Your task to perform on an android device: star an email in the gmail app Image 0: 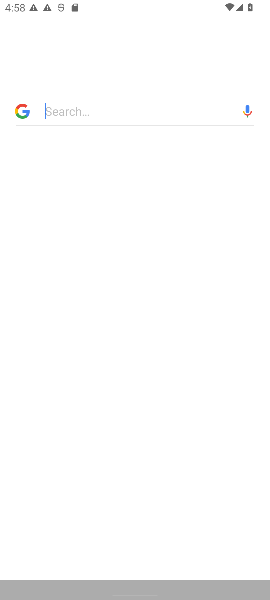
Step 0: click (257, 32)
Your task to perform on an android device: star an email in the gmail app Image 1: 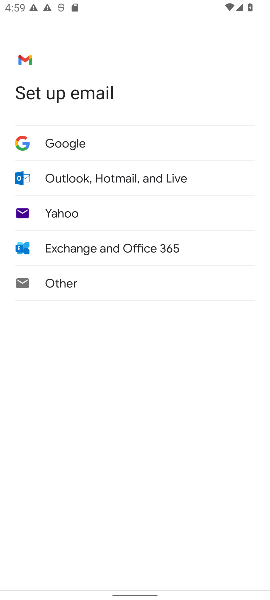
Step 1: press home button
Your task to perform on an android device: star an email in the gmail app Image 2: 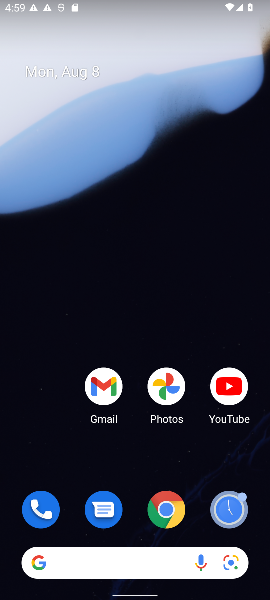
Step 2: click (105, 389)
Your task to perform on an android device: star an email in the gmail app Image 3: 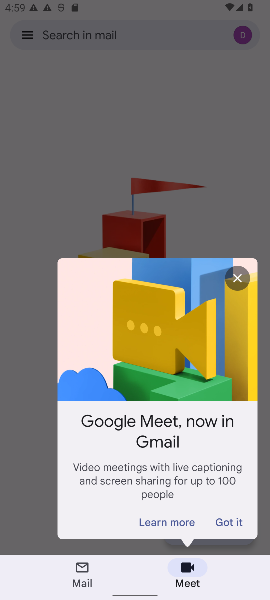
Step 3: click (240, 278)
Your task to perform on an android device: star an email in the gmail app Image 4: 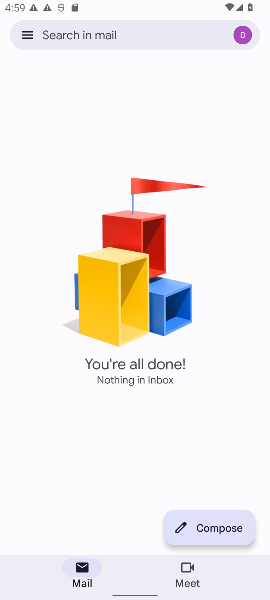
Step 4: click (223, 522)
Your task to perform on an android device: star an email in the gmail app Image 5: 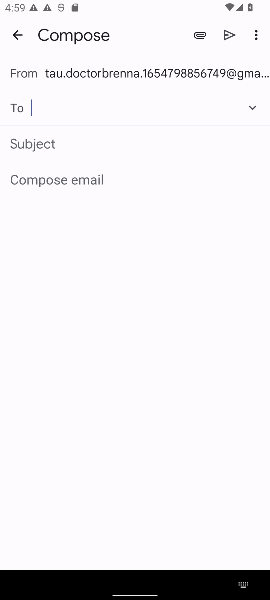
Step 5: click (6, 26)
Your task to perform on an android device: star an email in the gmail app Image 6: 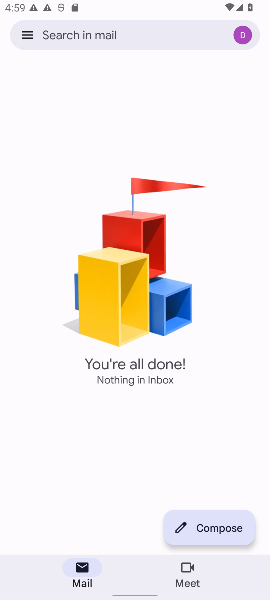
Step 6: click (18, 37)
Your task to perform on an android device: star an email in the gmail app Image 7: 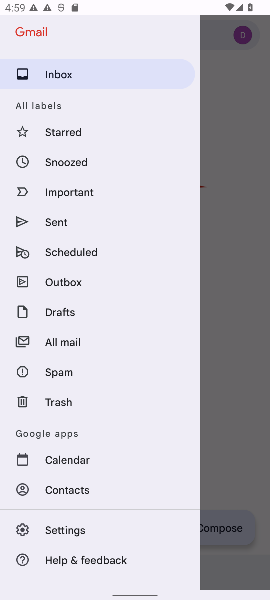
Step 7: click (61, 343)
Your task to perform on an android device: star an email in the gmail app Image 8: 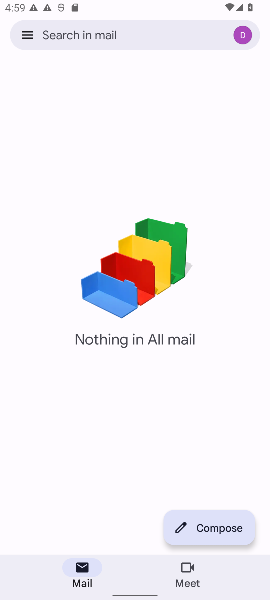
Step 8: task complete